Your task to perform on an android device: empty trash in the gmail app Image 0: 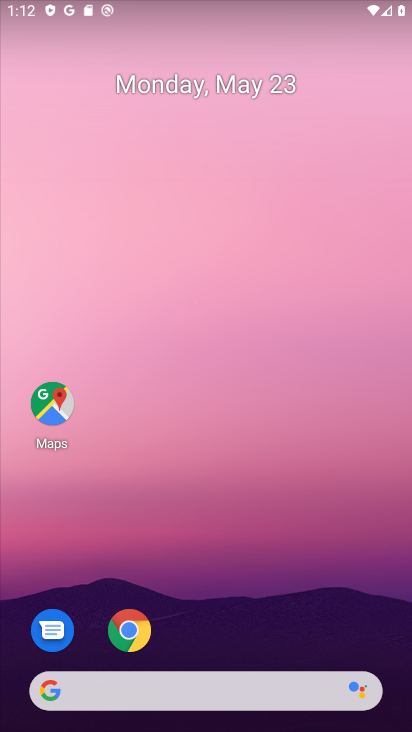
Step 0: click (134, 175)
Your task to perform on an android device: empty trash in the gmail app Image 1: 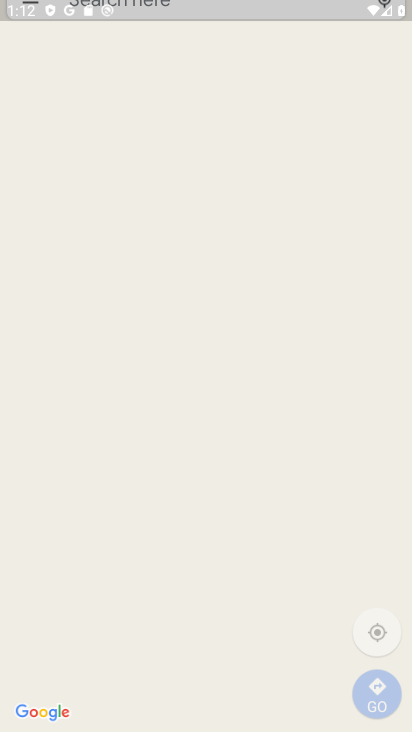
Step 1: click (214, 528)
Your task to perform on an android device: empty trash in the gmail app Image 2: 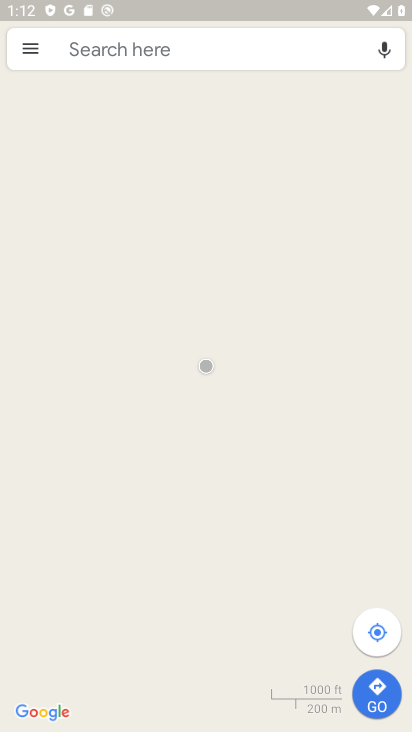
Step 2: press home button
Your task to perform on an android device: empty trash in the gmail app Image 3: 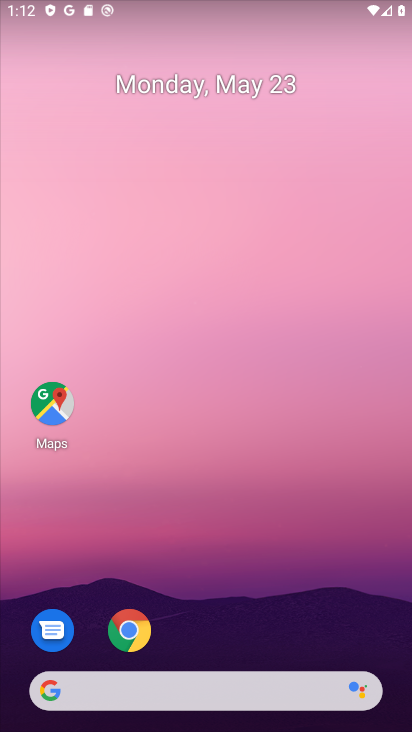
Step 3: drag from (212, 520) to (112, 16)
Your task to perform on an android device: empty trash in the gmail app Image 4: 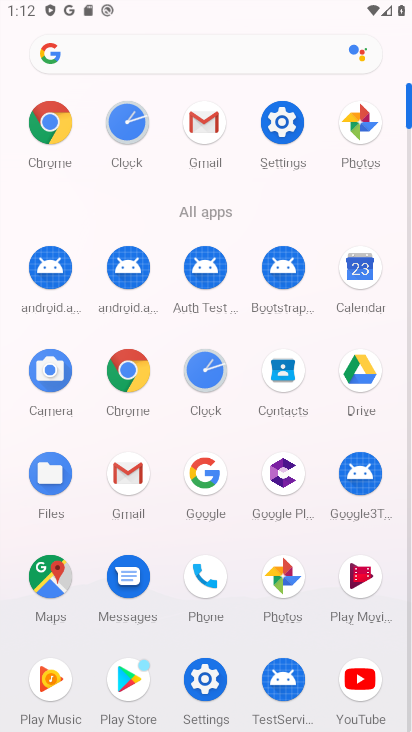
Step 4: click (126, 464)
Your task to perform on an android device: empty trash in the gmail app Image 5: 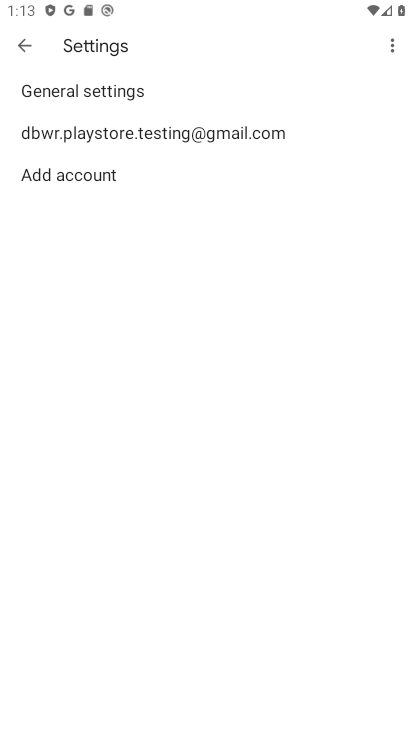
Step 5: click (23, 43)
Your task to perform on an android device: empty trash in the gmail app Image 6: 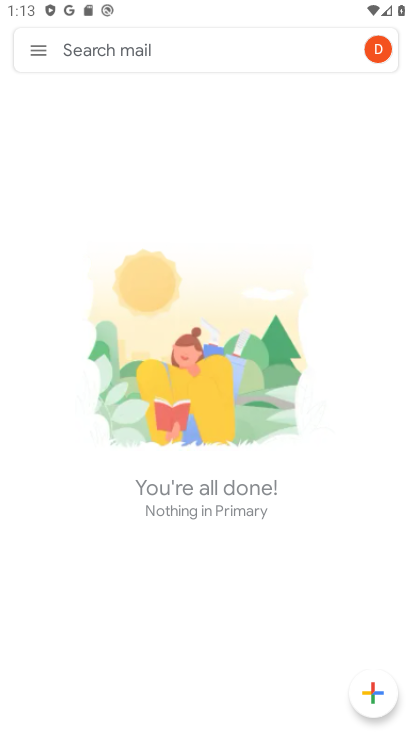
Step 6: click (35, 47)
Your task to perform on an android device: empty trash in the gmail app Image 7: 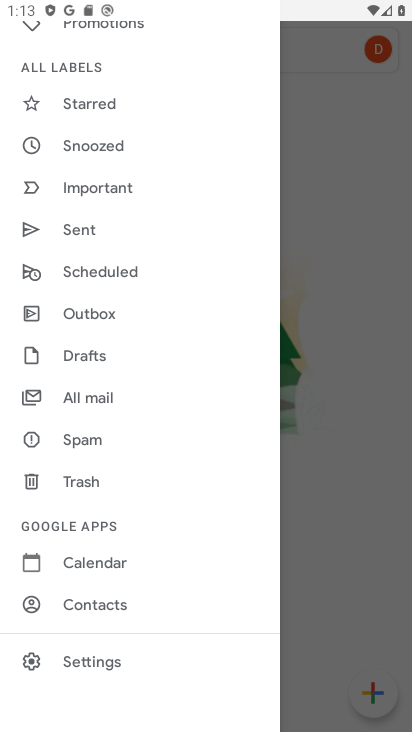
Step 7: click (79, 479)
Your task to perform on an android device: empty trash in the gmail app Image 8: 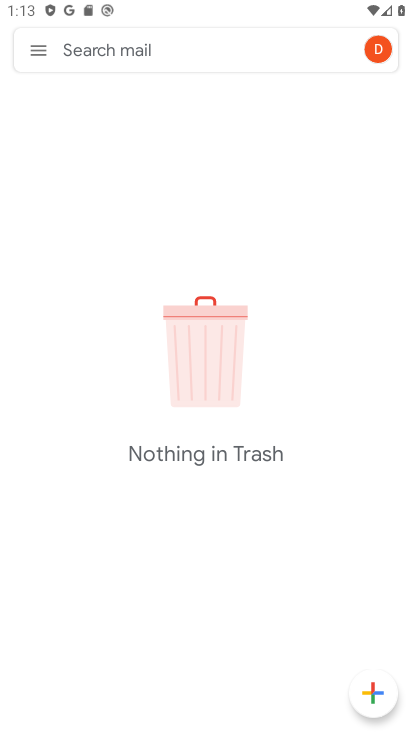
Step 8: task complete